Your task to perform on an android device: check data usage Image 0: 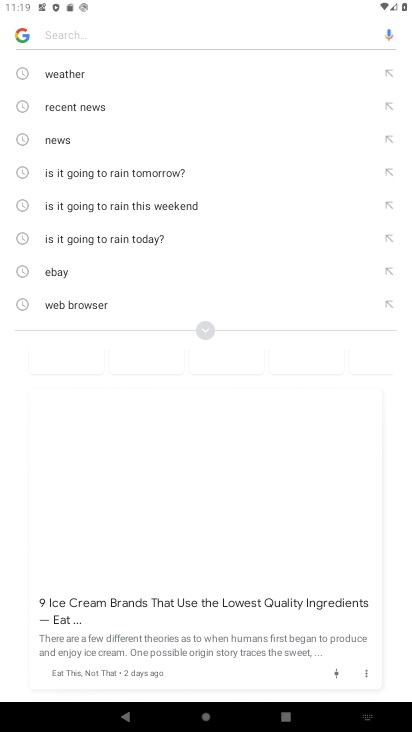
Step 0: press home button
Your task to perform on an android device: check data usage Image 1: 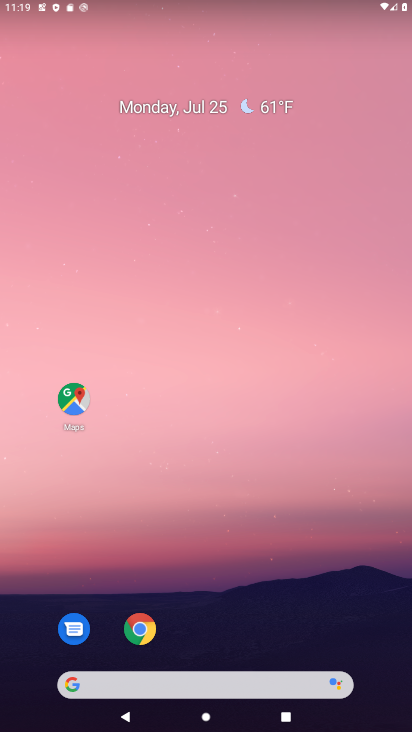
Step 1: drag from (233, 532) to (235, 209)
Your task to perform on an android device: check data usage Image 2: 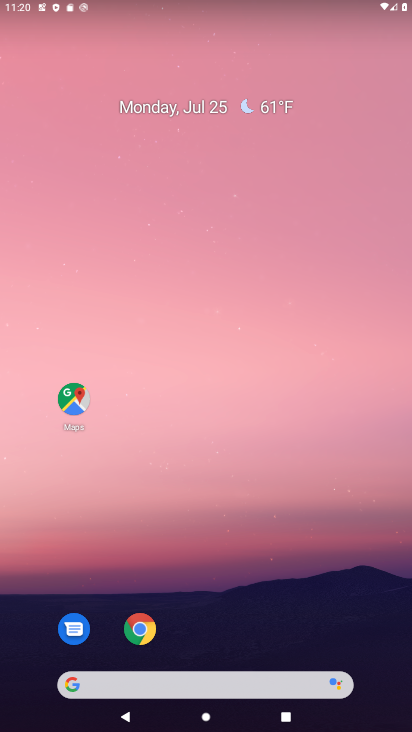
Step 2: drag from (207, 591) to (225, 93)
Your task to perform on an android device: check data usage Image 3: 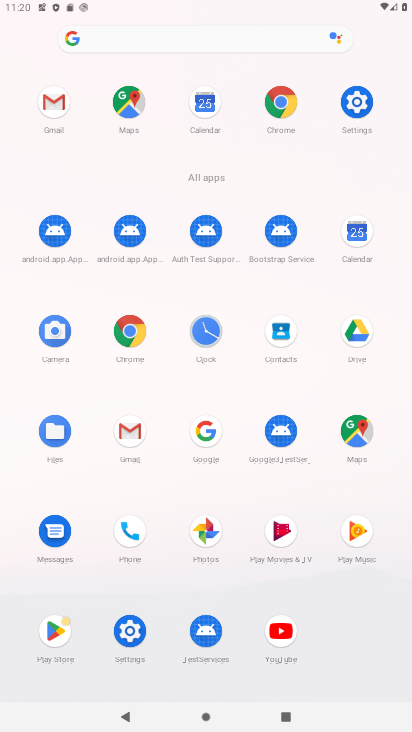
Step 3: click (338, 98)
Your task to perform on an android device: check data usage Image 4: 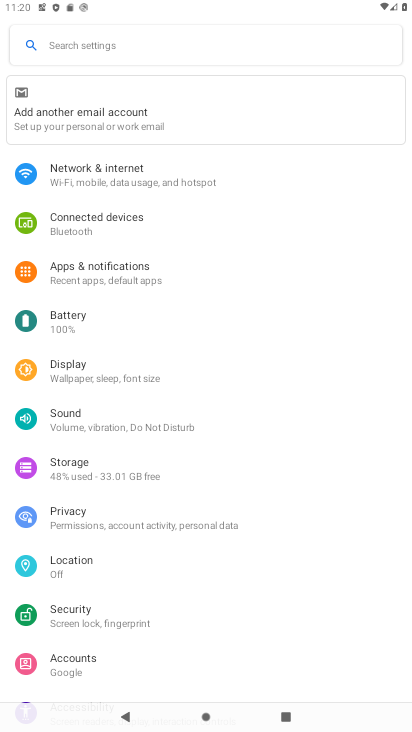
Step 4: click (118, 177)
Your task to perform on an android device: check data usage Image 5: 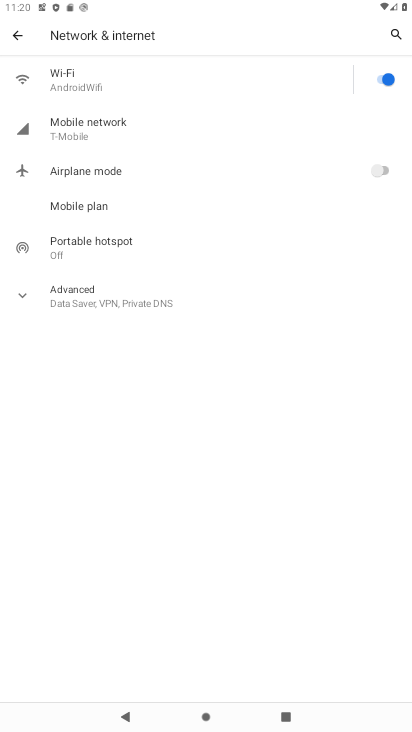
Step 5: click (101, 143)
Your task to perform on an android device: check data usage Image 6: 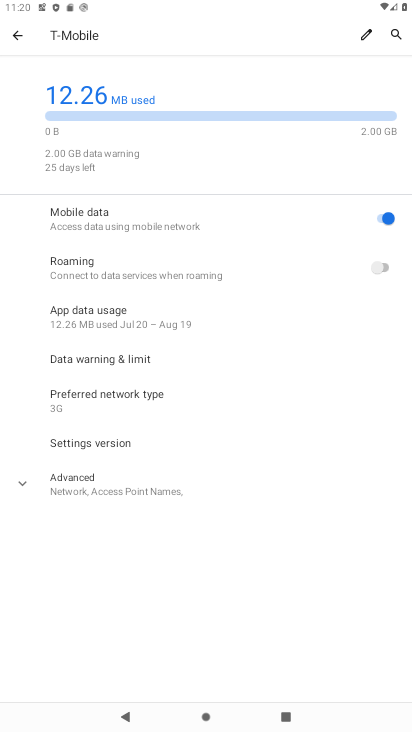
Step 6: click (148, 308)
Your task to perform on an android device: check data usage Image 7: 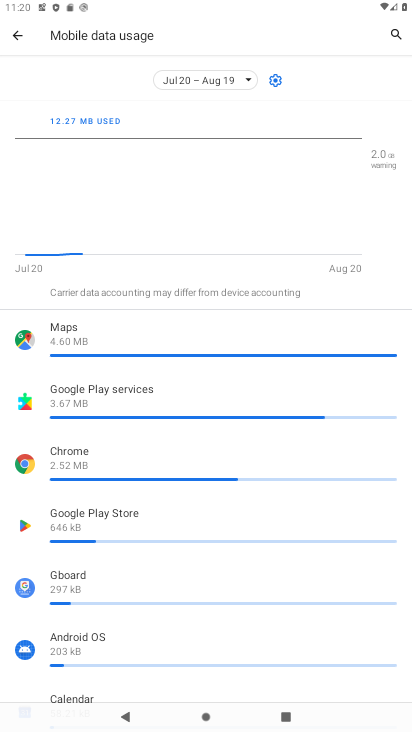
Step 7: task complete